Your task to perform on an android device: check data usage Image 0: 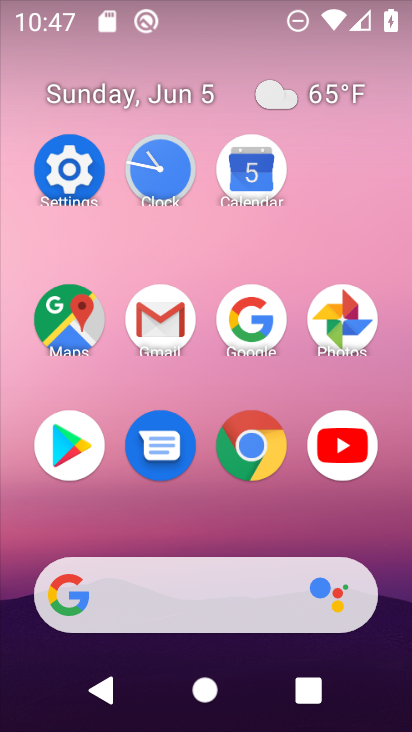
Step 0: click (91, 184)
Your task to perform on an android device: check data usage Image 1: 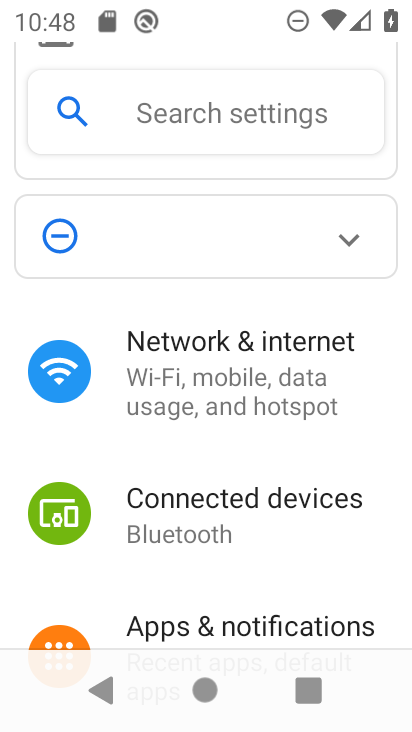
Step 1: click (153, 365)
Your task to perform on an android device: check data usage Image 2: 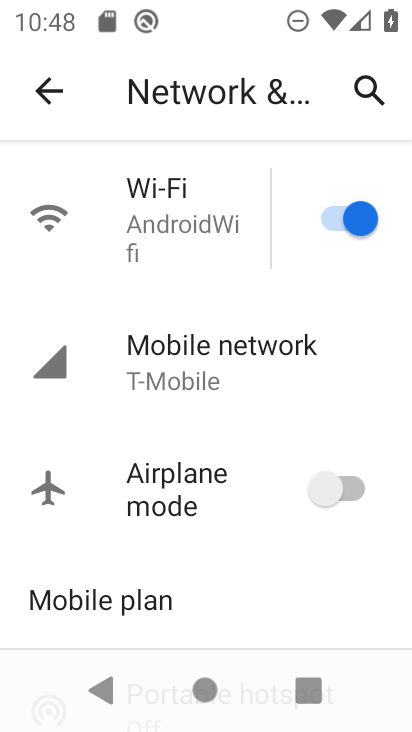
Step 2: click (153, 360)
Your task to perform on an android device: check data usage Image 3: 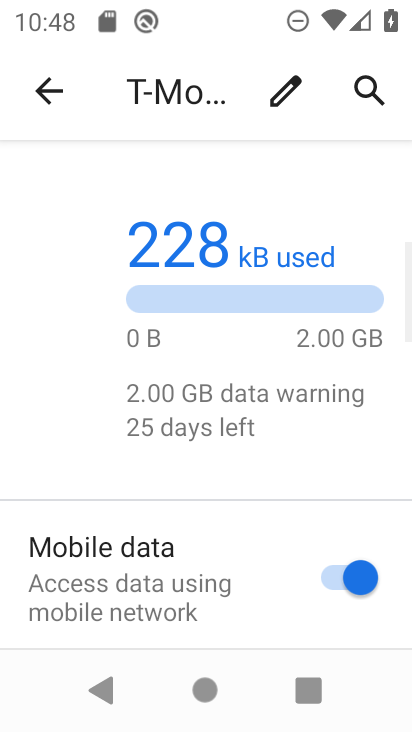
Step 3: task complete